Your task to perform on an android device: Go to Maps Image 0: 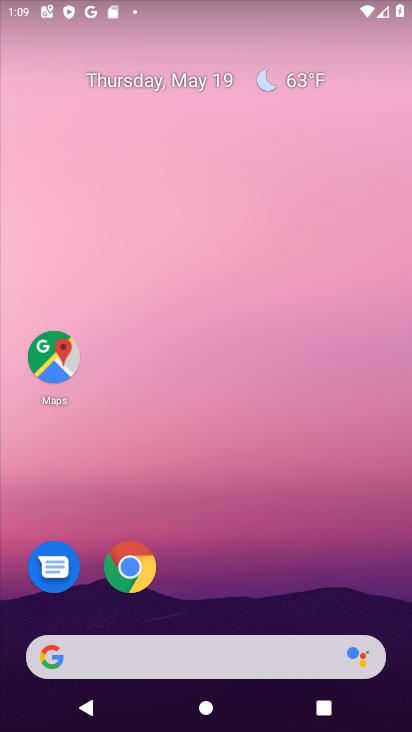
Step 0: drag from (325, 512) to (369, 42)
Your task to perform on an android device: Go to Maps Image 1: 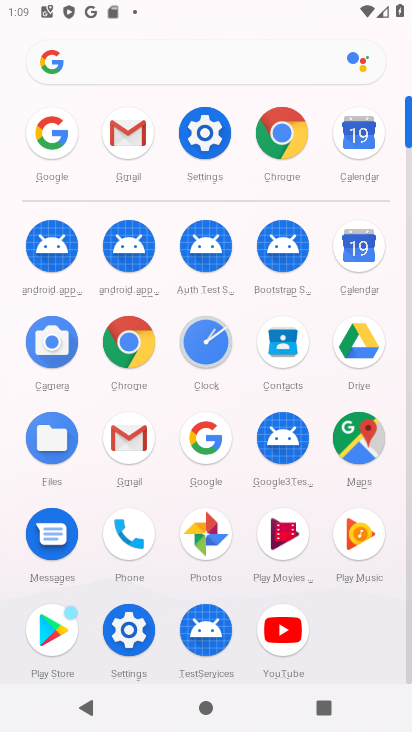
Step 1: click (375, 461)
Your task to perform on an android device: Go to Maps Image 2: 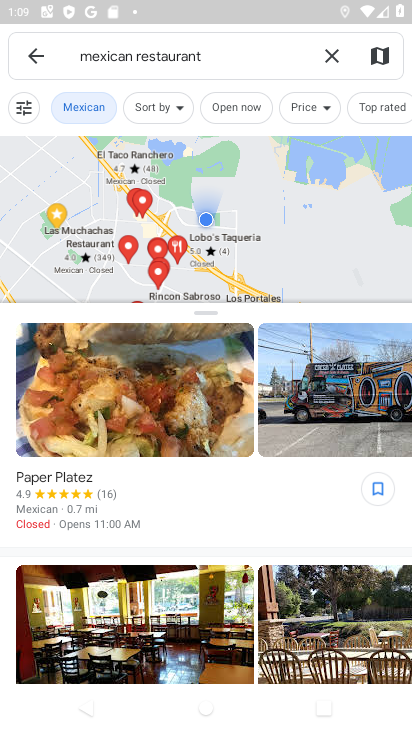
Step 2: task complete